Your task to perform on an android device: Open Google Chrome and open the bookmarks view Image 0: 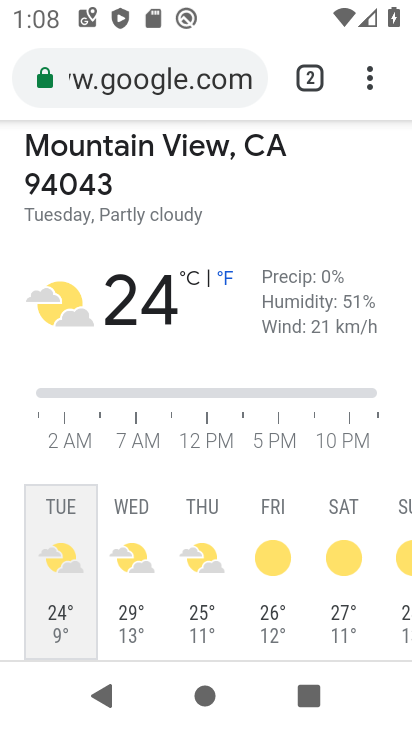
Step 0: click (370, 79)
Your task to perform on an android device: Open Google Chrome and open the bookmarks view Image 1: 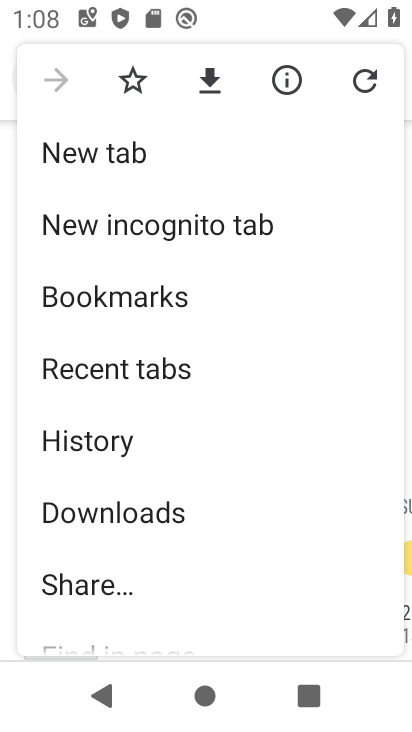
Step 1: click (269, 310)
Your task to perform on an android device: Open Google Chrome and open the bookmarks view Image 2: 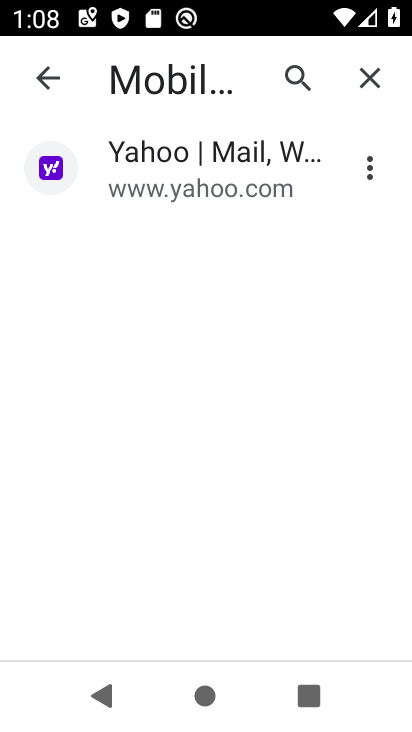
Step 2: task complete